Your task to perform on an android device: Open CNN.com Image 0: 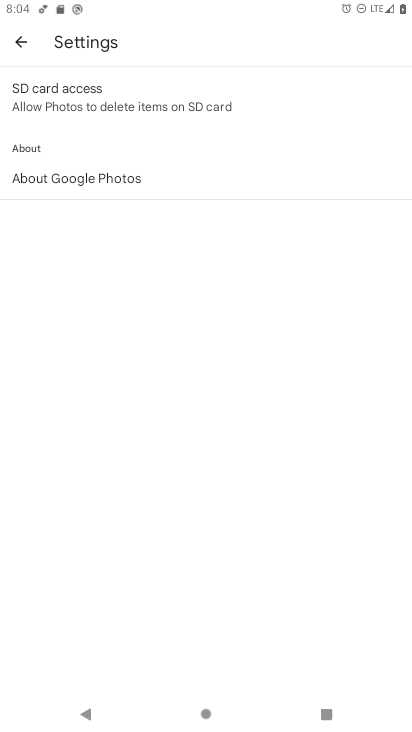
Step 0: press home button
Your task to perform on an android device: Open CNN.com Image 1: 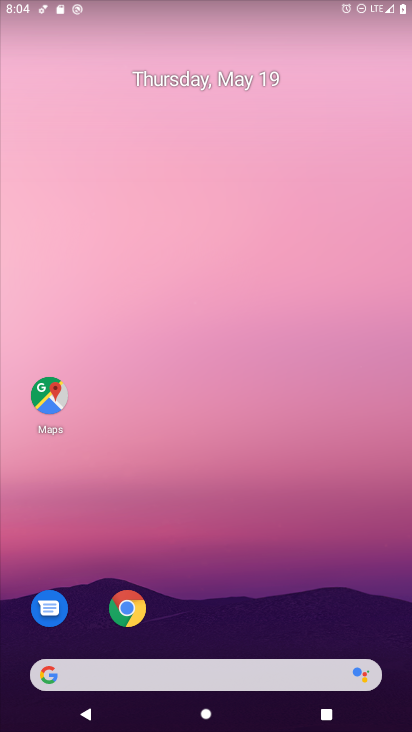
Step 1: click (121, 610)
Your task to perform on an android device: Open CNN.com Image 2: 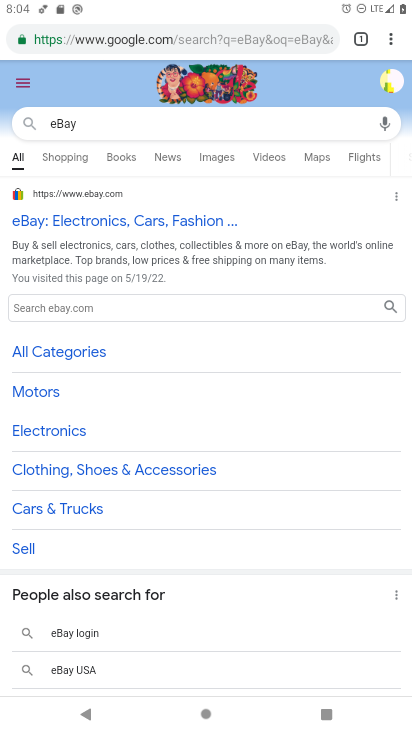
Step 2: click (333, 34)
Your task to perform on an android device: Open CNN.com Image 3: 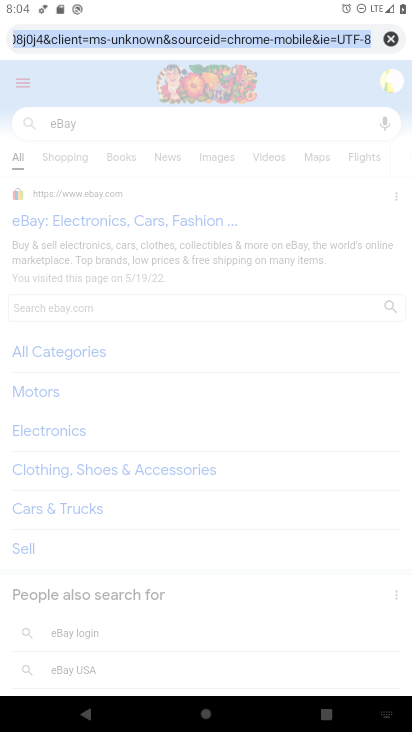
Step 3: click (392, 37)
Your task to perform on an android device: Open CNN.com Image 4: 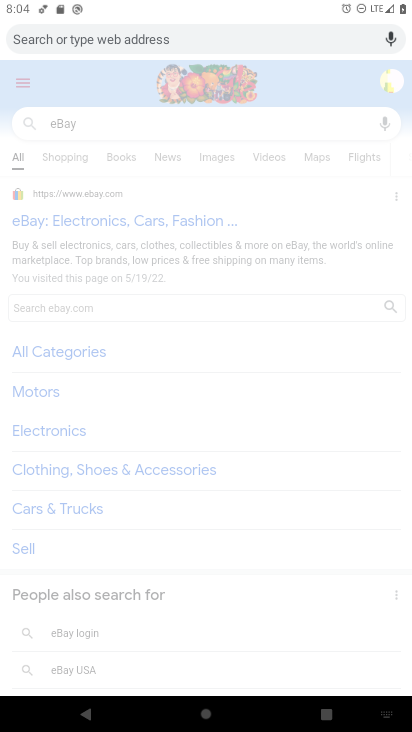
Step 4: type "CNN.com"
Your task to perform on an android device: Open CNN.com Image 5: 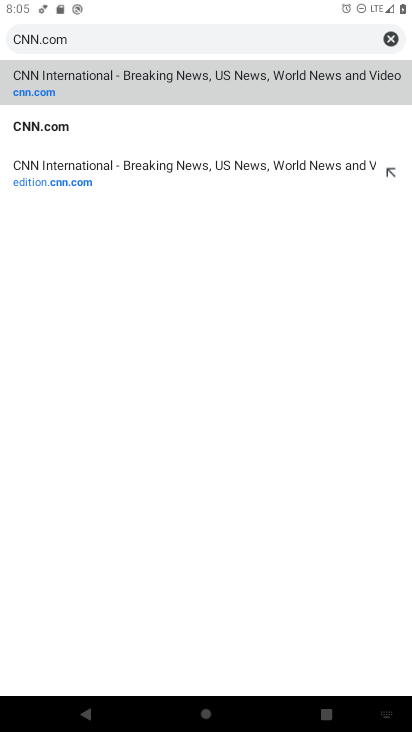
Step 5: click (58, 129)
Your task to perform on an android device: Open CNN.com Image 6: 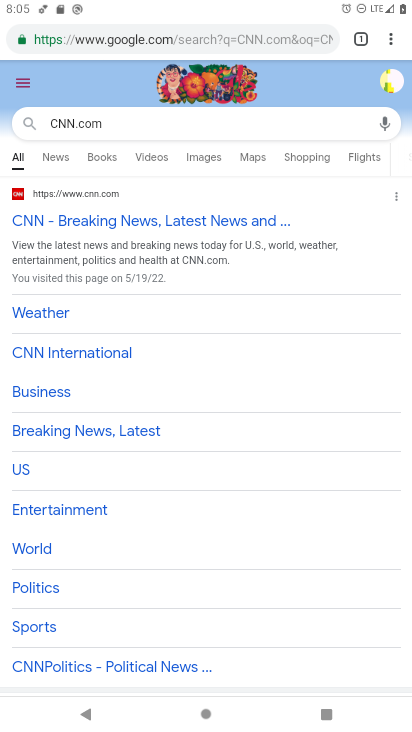
Step 6: task complete